Your task to perform on an android device: Open the web browser Image 0: 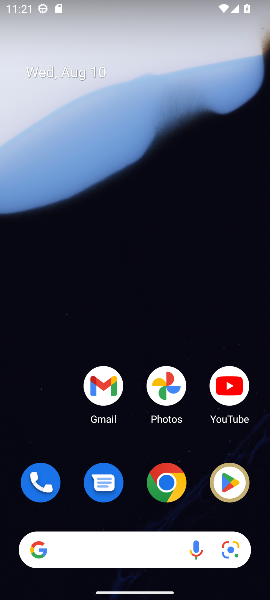
Step 0: click (157, 487)
Your task to perform on an android device: Open the web browser Image 1: 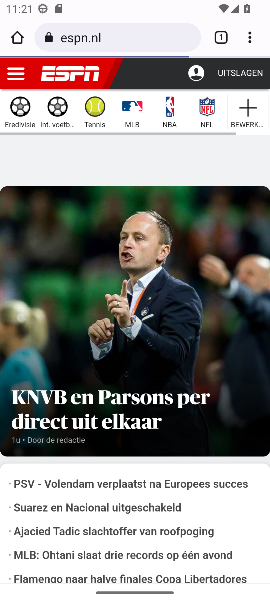
Step 1: task complete